Your task to perform on an android device: Go to eBay Image 0: 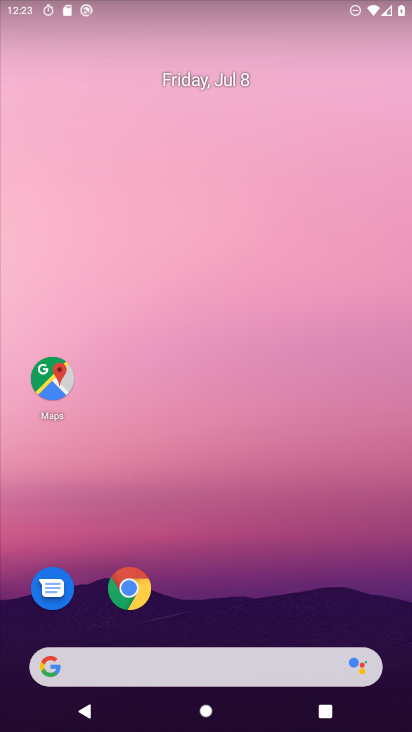
Step 0: drag from (291, 522) to (315, 0)
Your task to perform on an android device: Go to eBay Image 1: 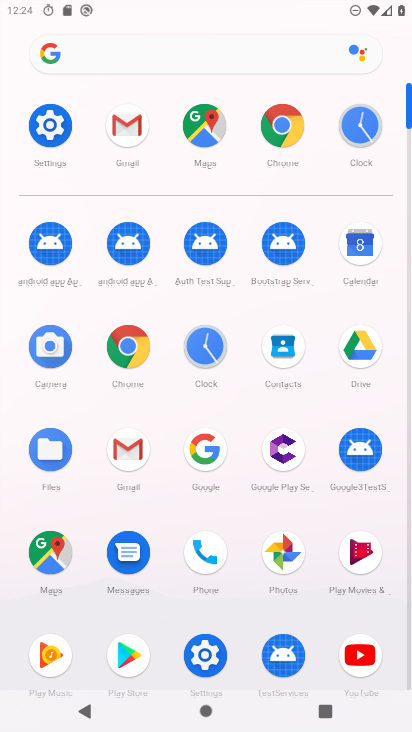
Step 1: click (282, 125)
Your task to perform on an android device: Go to eBay Image 2: 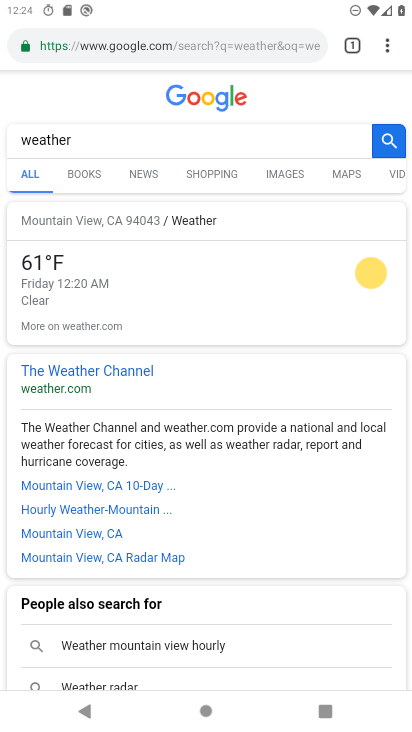
Step 2: click (162, 42)
Your task to perform on an android device: Go to eBay Image 3: 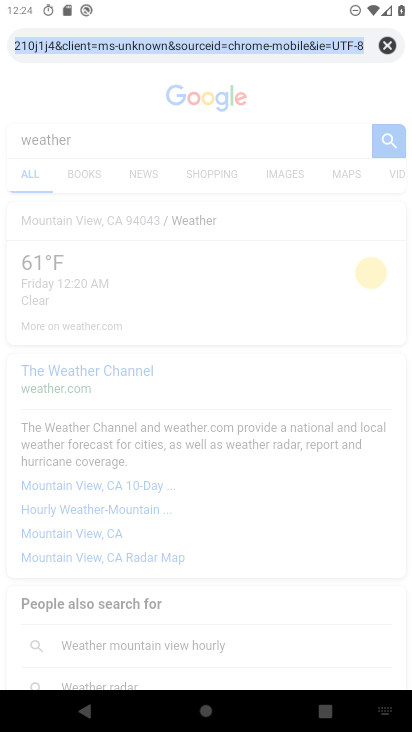
Step 3: type "ebay"
Your task to perform on an android device: Go to eBay Image 4: 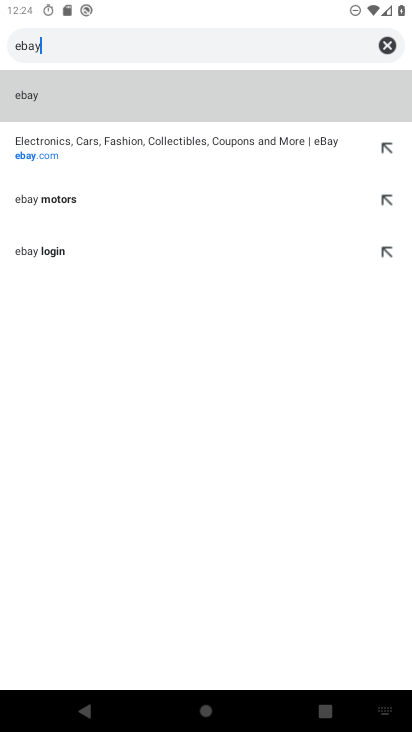
Step 4: click (40, 153)
Your task to perform on an android device: Go to eBay Image 5: 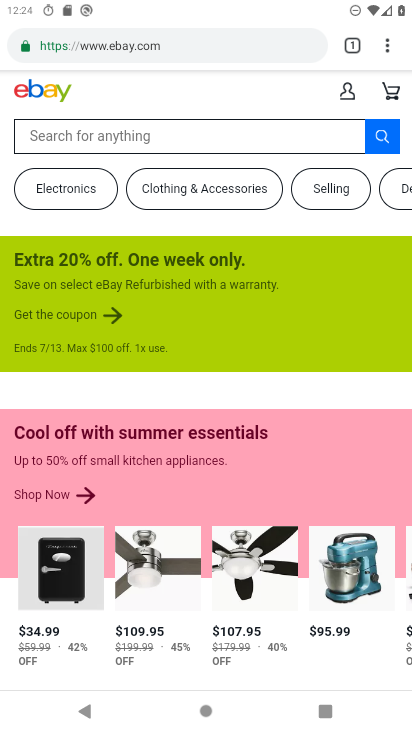
Step 5: task complete